Your task to perform on an android device: toggle show notifications on the lock screen Image 0: 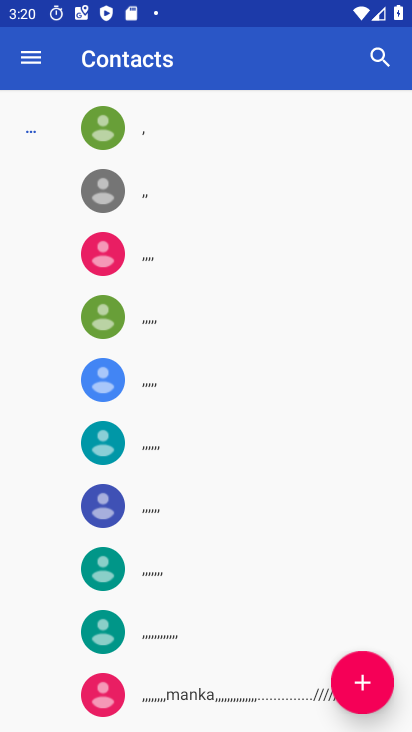
Step 0: press home button
Your task to perform on an android device: toggle show notifications on the lock screen Image 1: 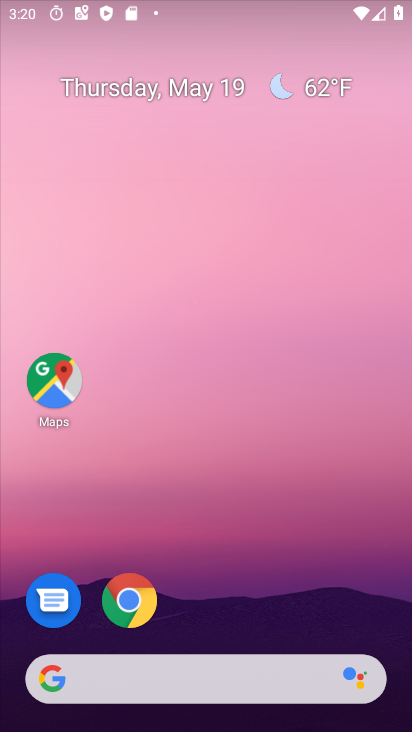
Step 1: drag from (29, 606) to (276, 124)
Your task to perform on an android device: toggle show notifications on the lock screen Image 2: 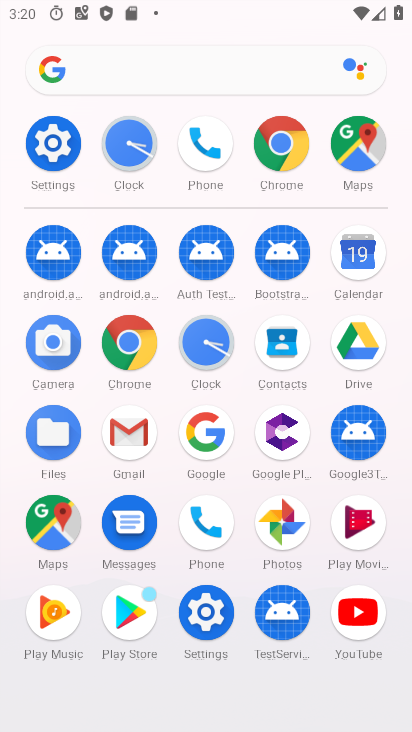
Step 2: click (77, 148)
Your task to perform on an android device: toggle show notifications on the lock screen Image 3: 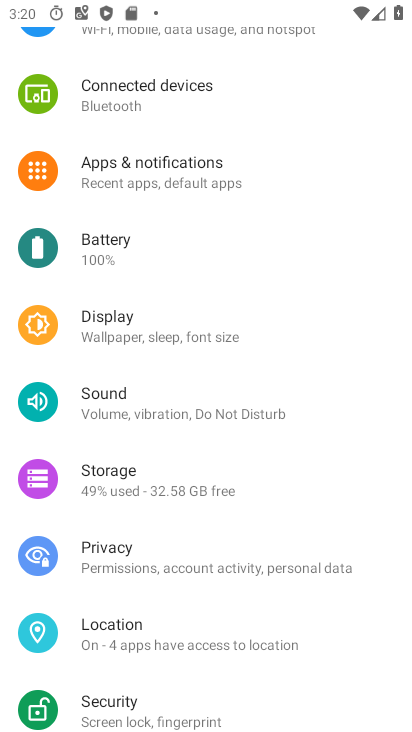
Step 3: click (188, 167)
Your task to perform on an android device: toggle show notifications on the lock screen Image 4: 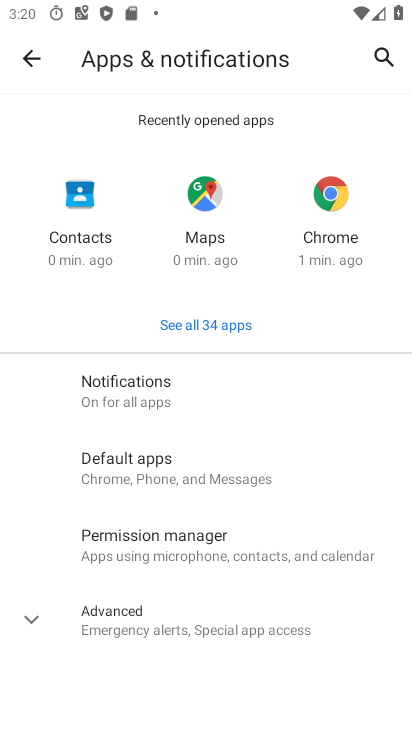
Step 4: click (143, 399)
Your task to perform on an android device: toggle show notifications on the lock screen Image 5: 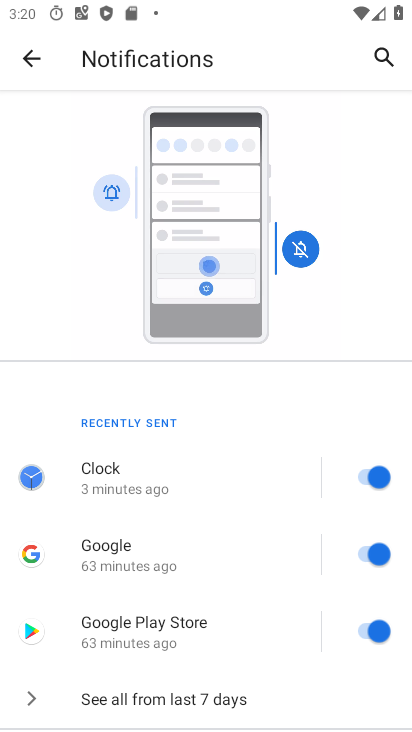
Step 5: drag from (32, 571) to (227, 244)
Your task to perform on an android device: toggle show notifications on the lock screen Image 6: 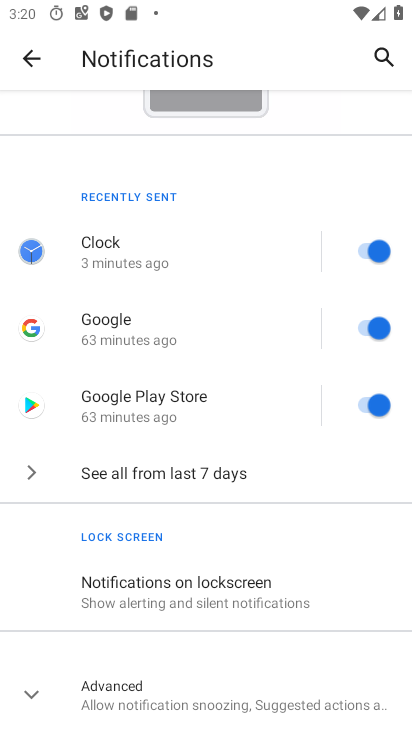
Step 6: drag from (60, 594) to (267, 239)
Your task to perform on an android device: toggle show notifications on the lock screen Image 7: 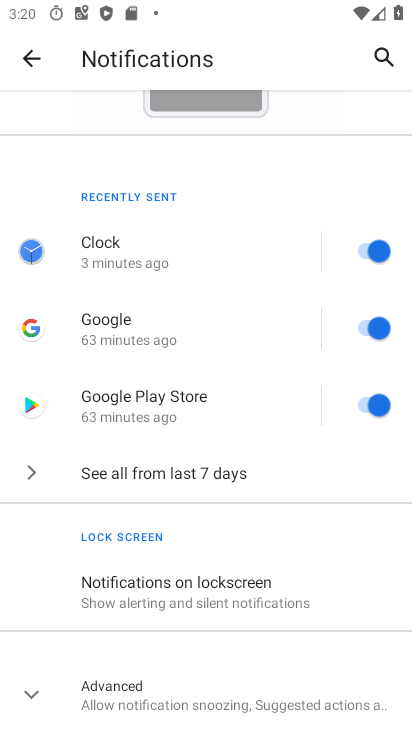
Step 7: click (187, 581)
Your task to perform on an android device: toggle show notifications on the lock screen Image 8: 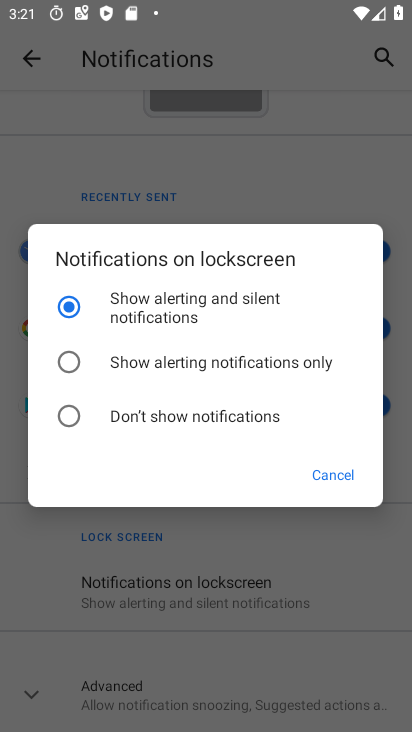
Step 8: click (234, 407)
Your task to perform on an android device: toggle show notifications on the lock screen Image 9: 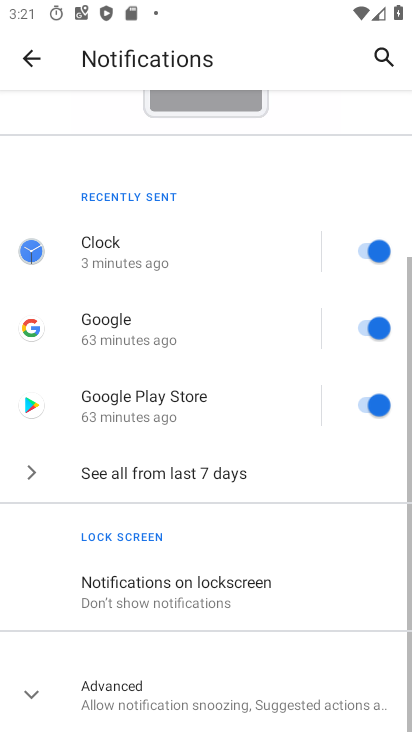
Step 9: task complete